Your task to perform on an android device: turn off smart reply in the gmail app Image 0: 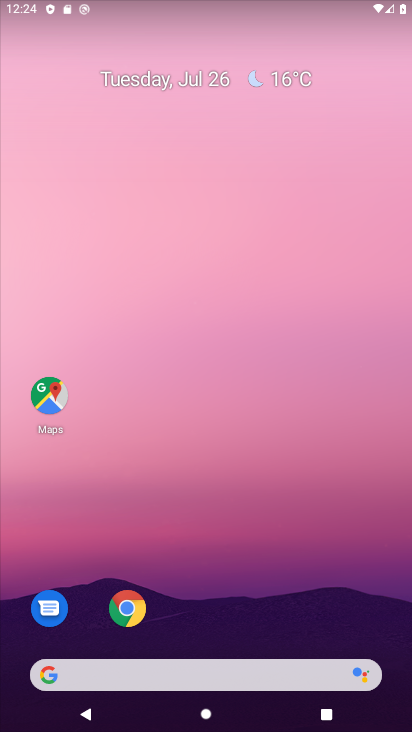
Step 0: drag from (253, 616) to (319, 123)
Your task to perform on an android device: turn off smart reply in the gmail app Image 1: 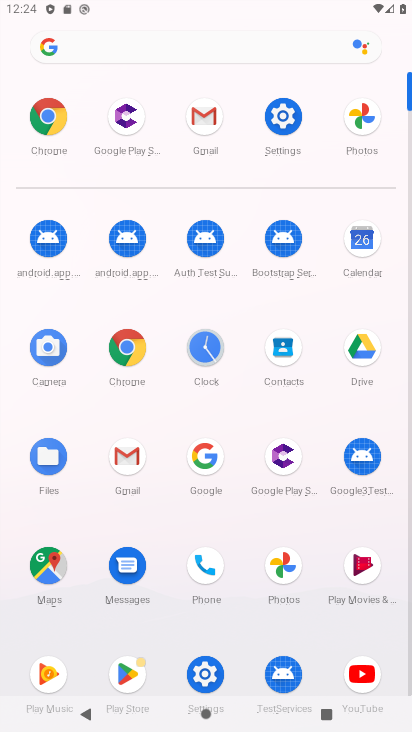
Step 1: click (205, 143)
Your task to perform on an android device: turn off smart reply in the gmail app Image 2: 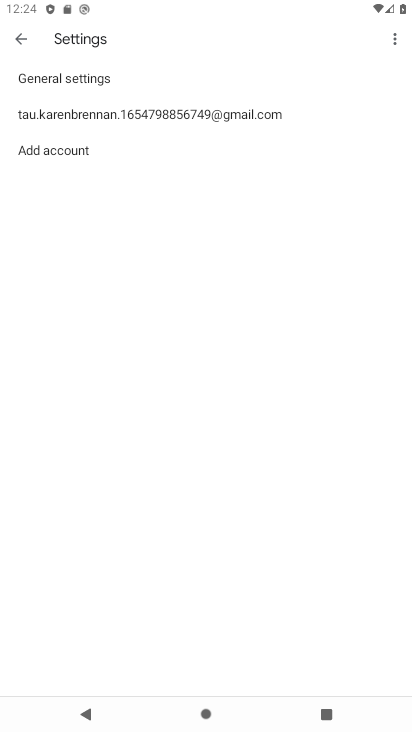
Step 2: task complete